Your task to perform on an android device: Go to Android settings Image 0: 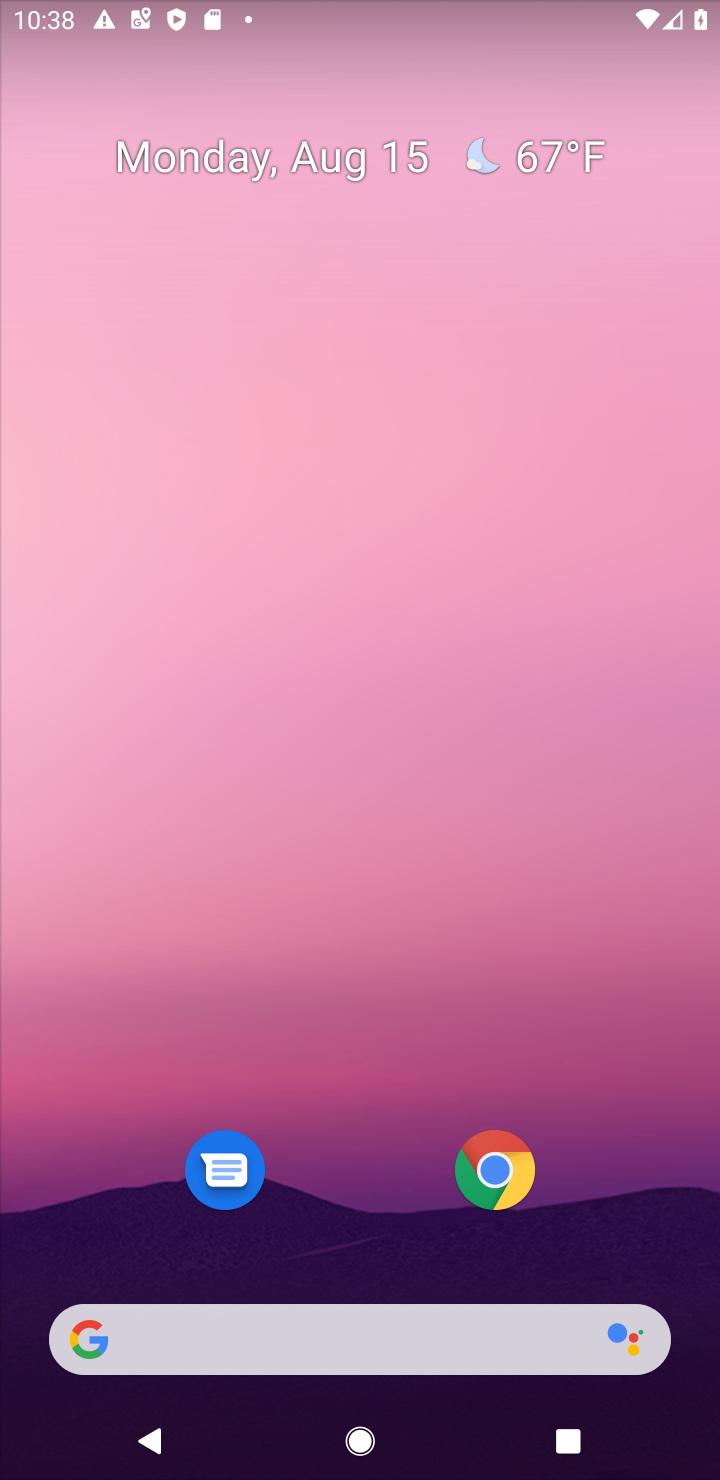
Step 0: press home button
Your task to perform on an android device: Go to Android settings Image 1: 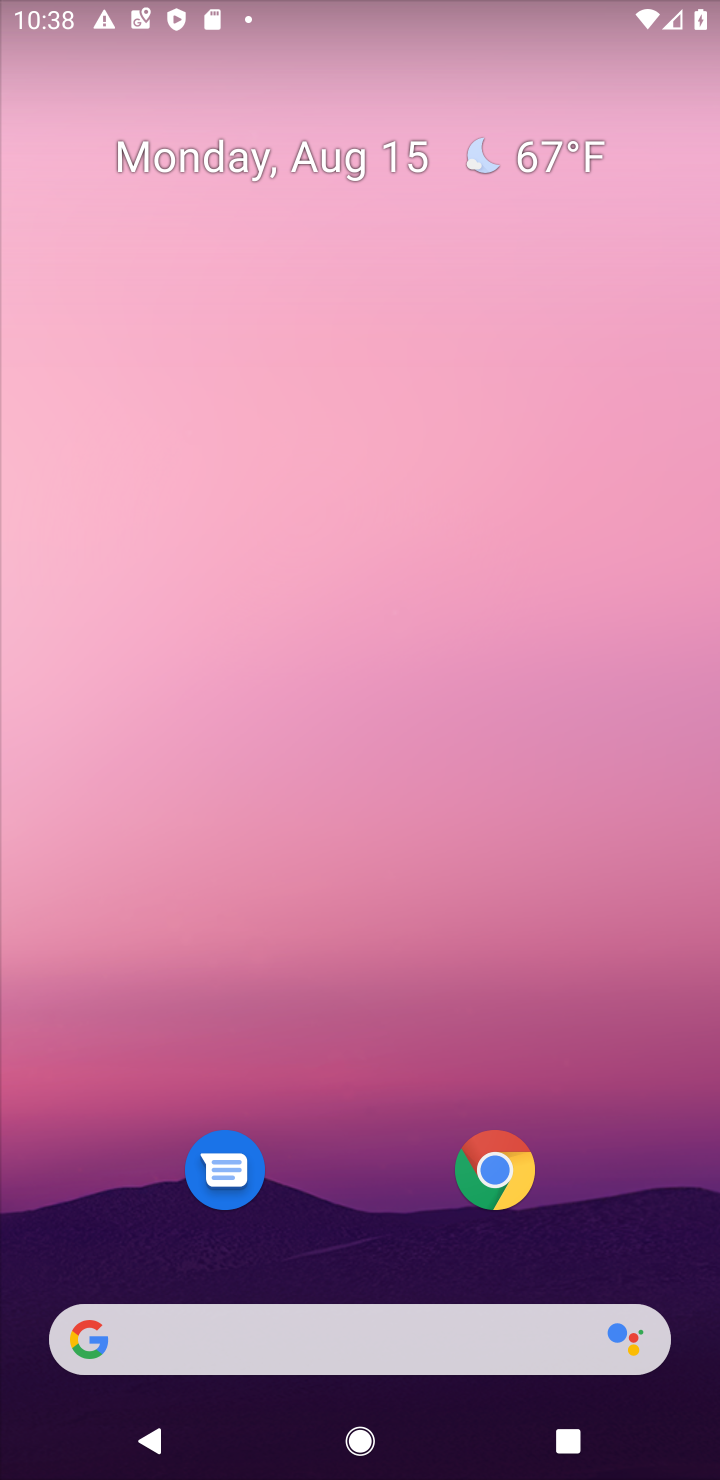
Step 1: drag from (370, 1267) to (438, 87)
Your task to perform on an android device: Go to Android settings Image 2: 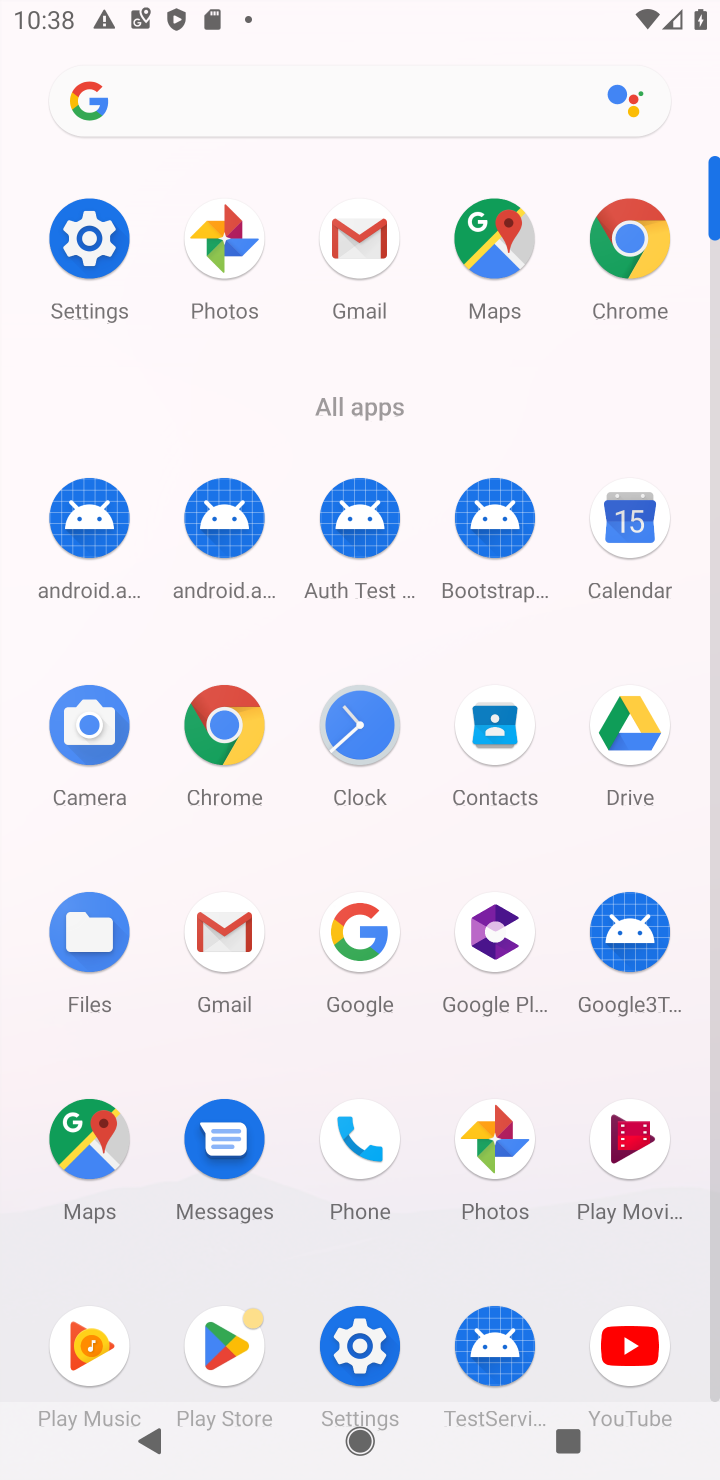
Step 2: click (77, 238)
Your task to perform on an android device: Go to Android settings Image 3: 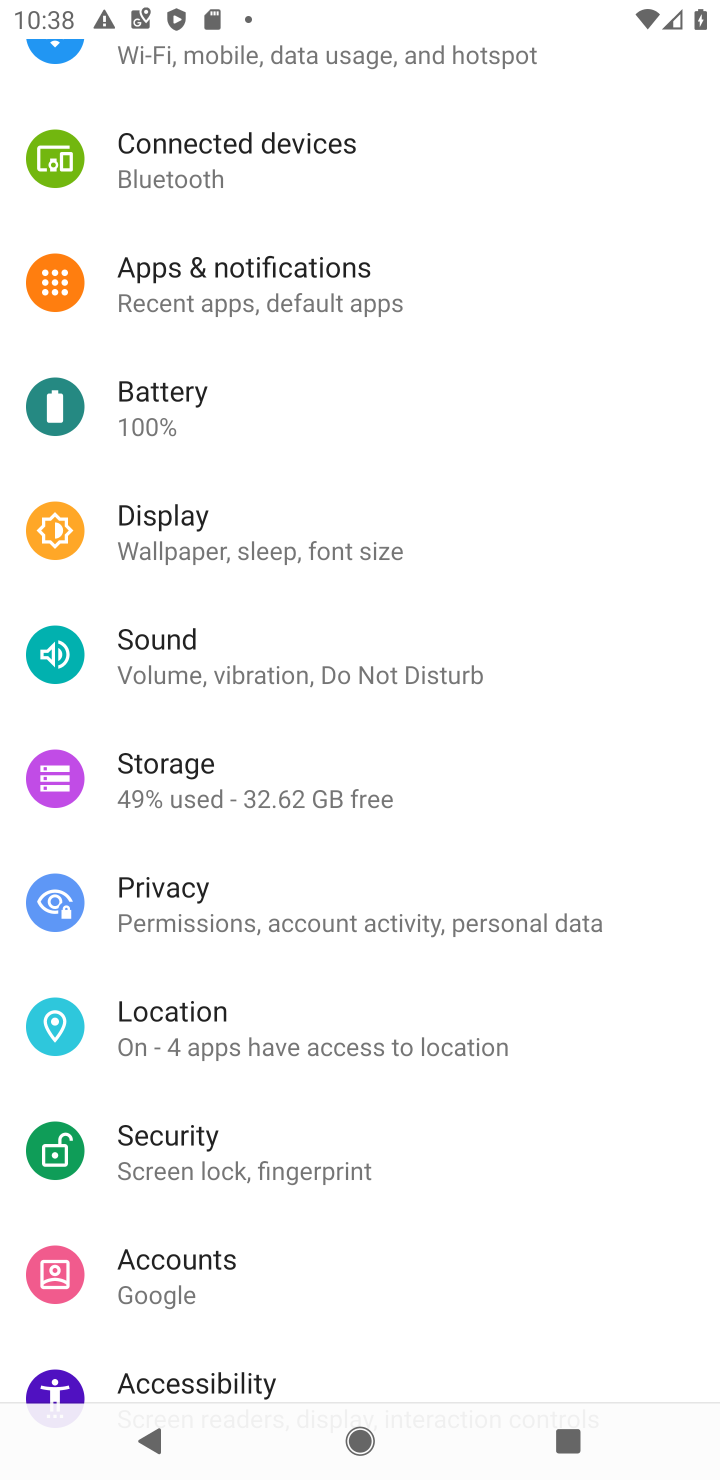
Step 3: drag from (307, 1361) to (357, 187)
Your task to perform on an android device: Go to Android settings Image 4: 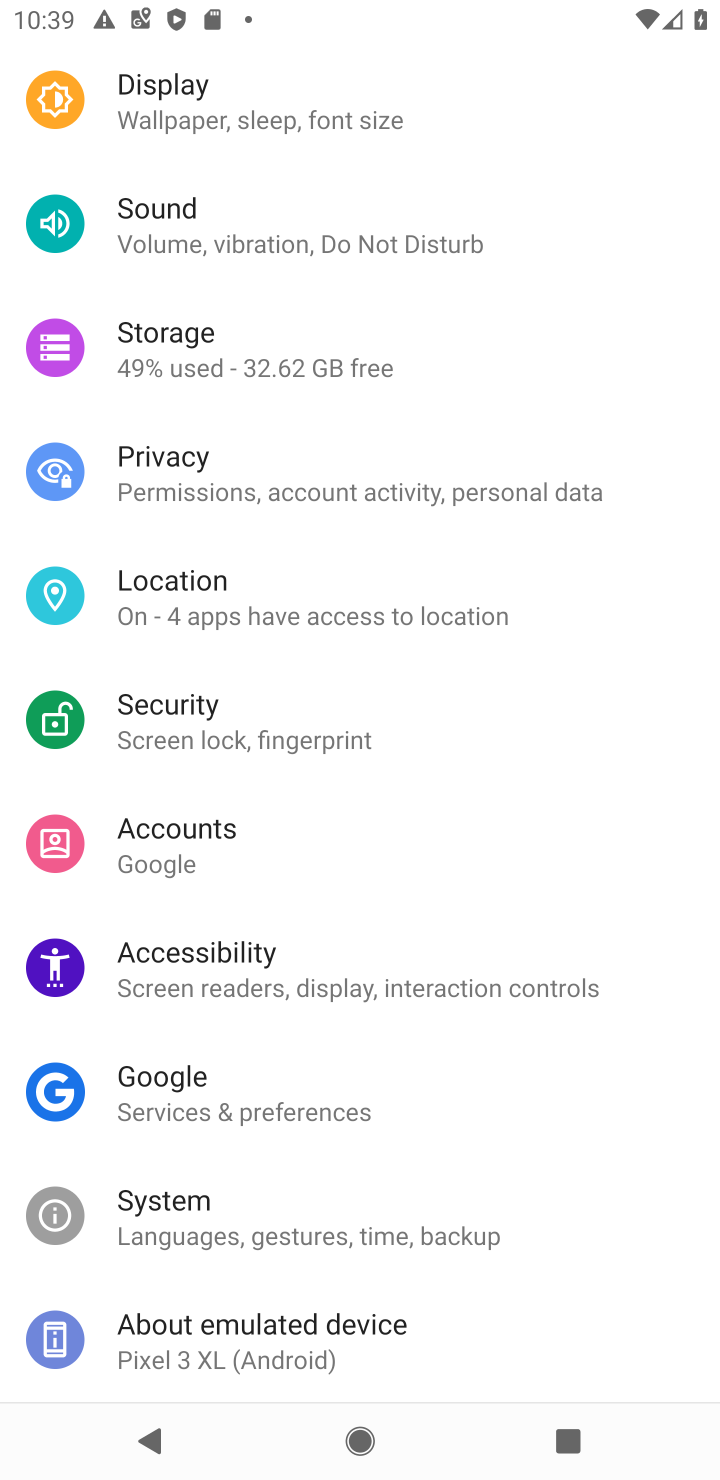
Step 4: click (409, 1336)
Your task to perform on an android device: Go to Android settings Image 5: 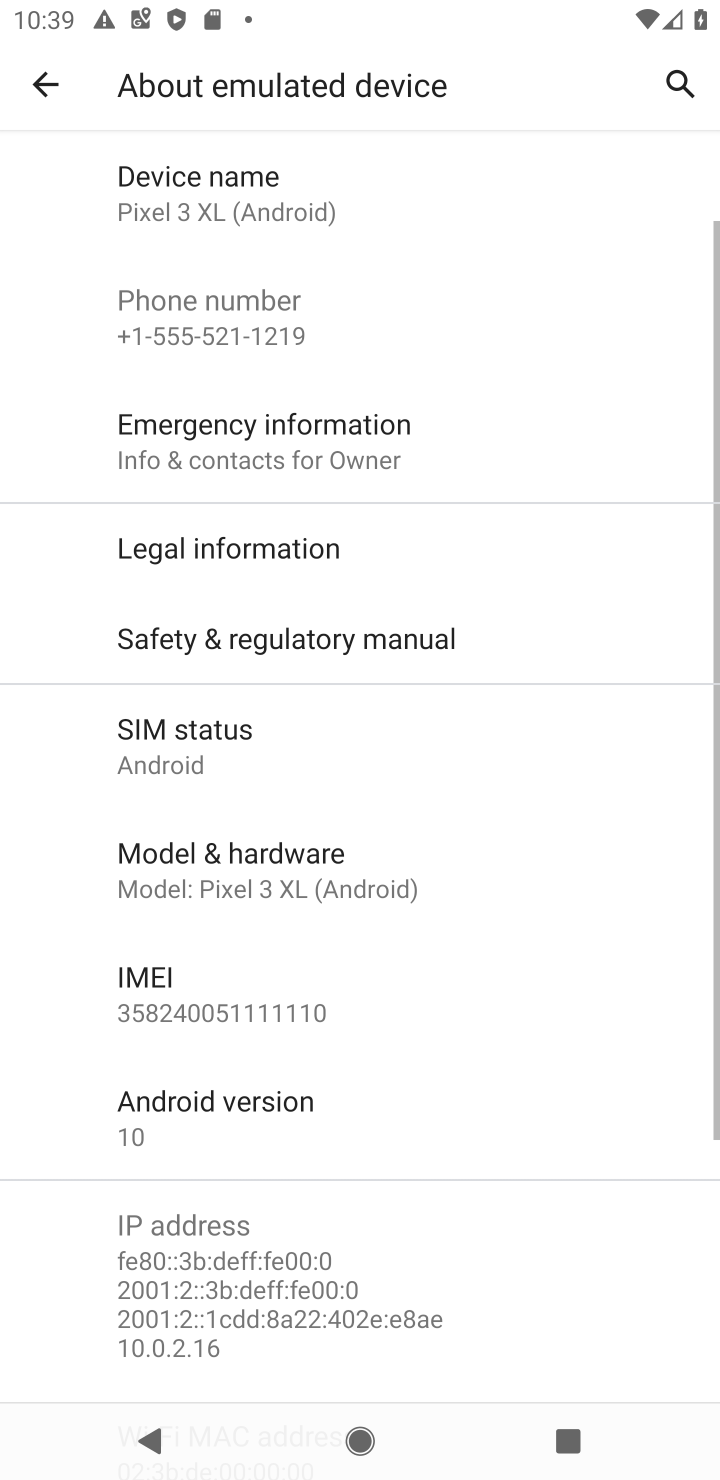
Step 5: click (297, 1129)
Your task to perform on an android device: Go to Android settings Image 6: 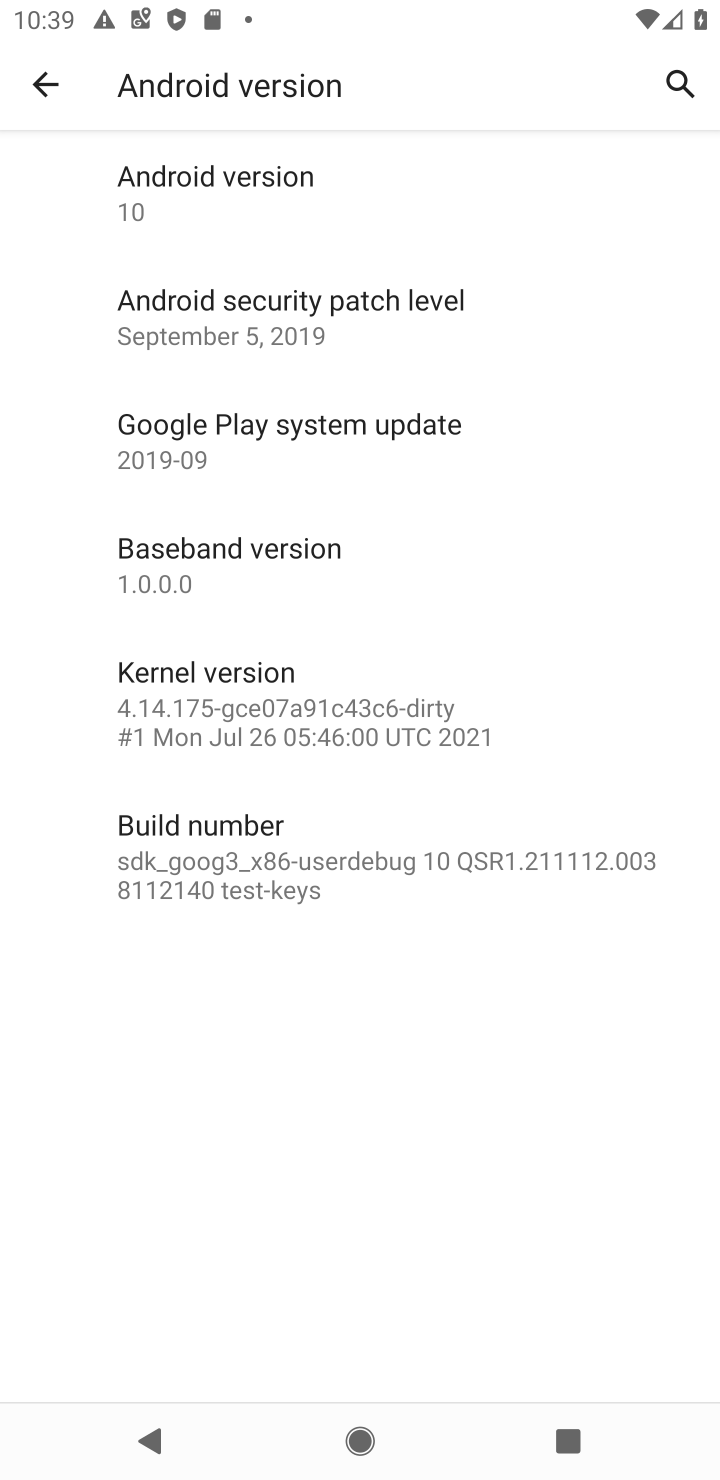
Step 6: task complete